Your task to perform on an android device: Show me popular videos on Youtube Image 0: 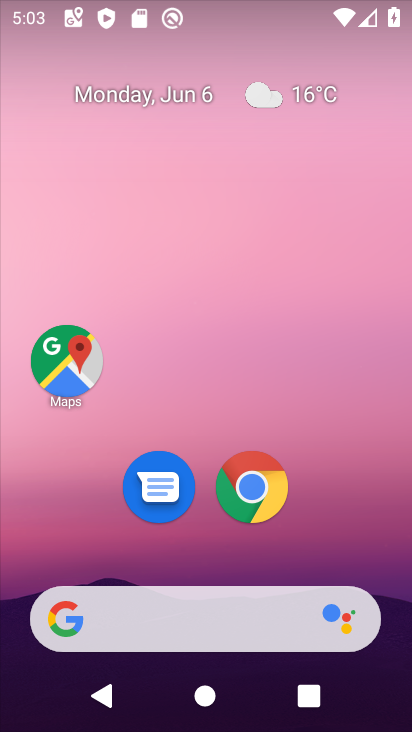
Step 0: drag from (309, 556) to (317, 90)
Your task to perform on an android device: Show me popular videos on Youtube Image 1: 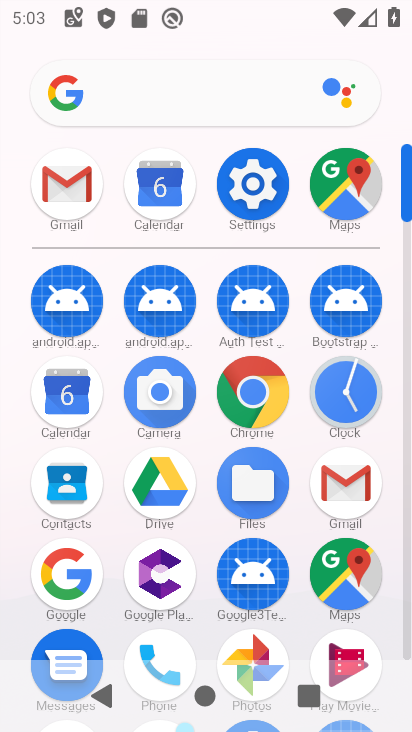
Step 1: drag from (292, 449) to (292, 215)
Your task to perform on an android device: Show me popular videos on Youtube Image 2: 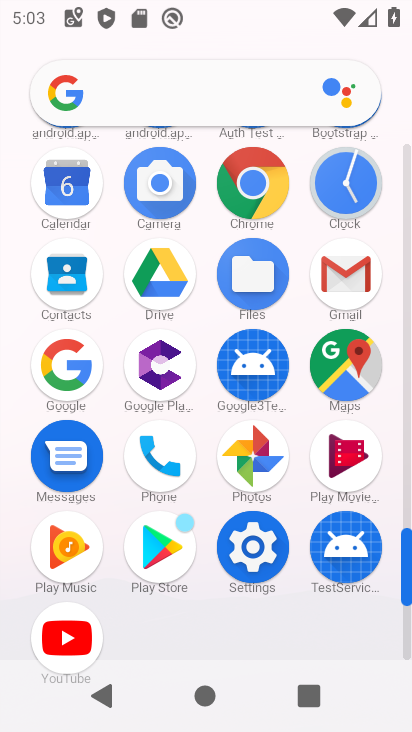
Step 2: click (70, 628)
Your task to perform on an android device: Show me popular videos on Youtube Image 3: 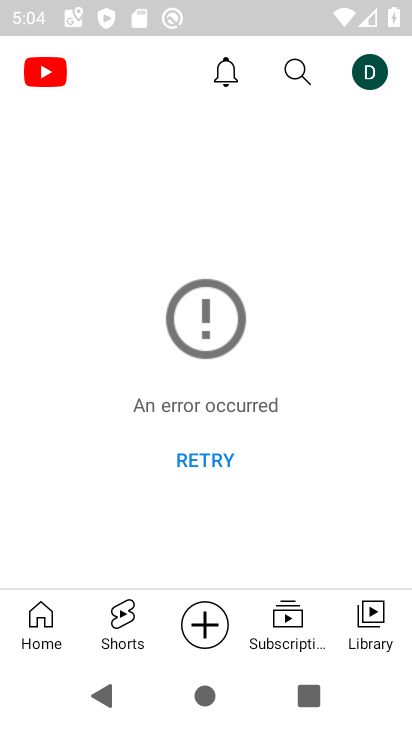
Step 3: click (298, 69)
Your task to perform on an android device: Show me popular videos on Youtube Image 4: 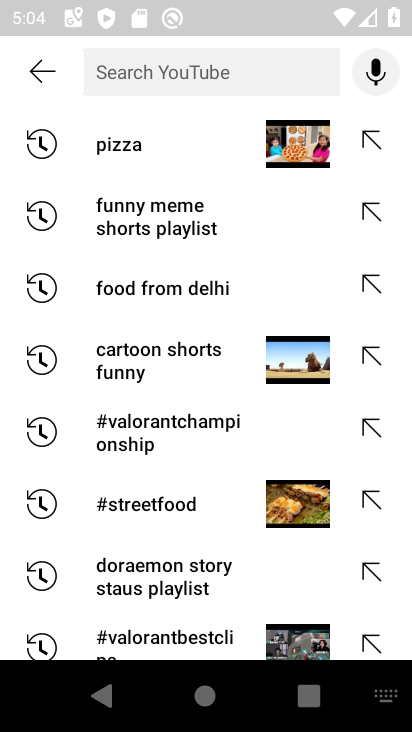
Step 4: type "popular videos"
Your task to perform on an android device: Show me popular videos on Youtube Image 5: 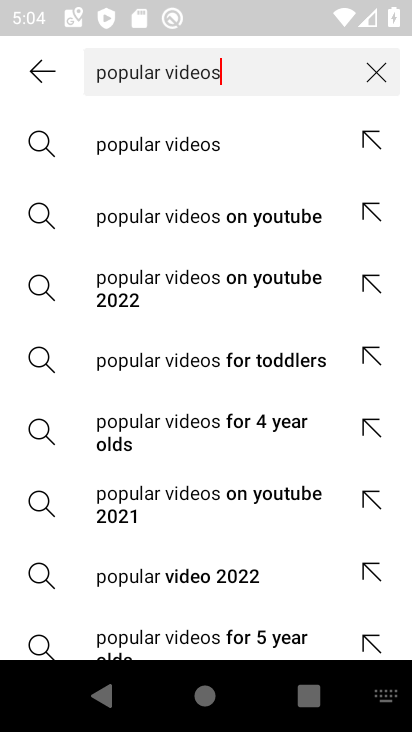
Step 5: click (251, 201)
Your task to perform on an android device: Show me popular videos on Youtube Image 6: 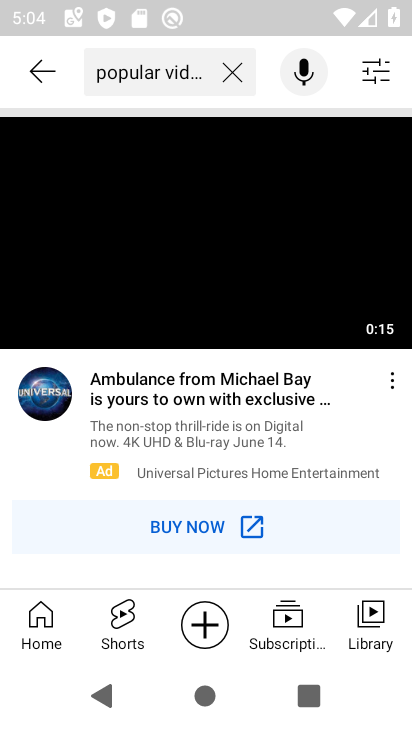
Step 6: task complete